Your task to perform on an android device: turn off location Image 0: 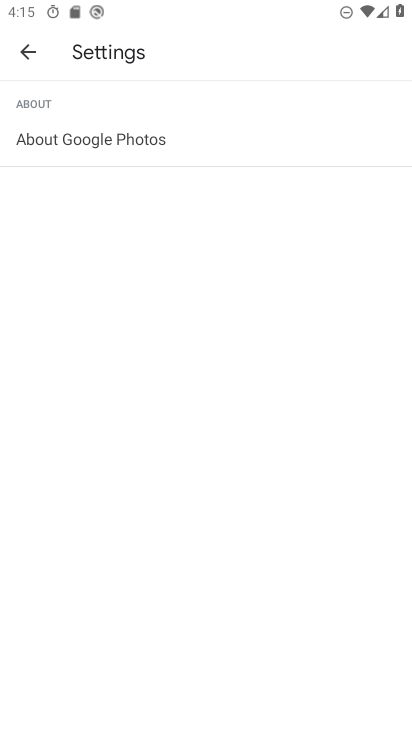
Step 0: press home button
Your task to perform on an android device: turn off location Image 1: 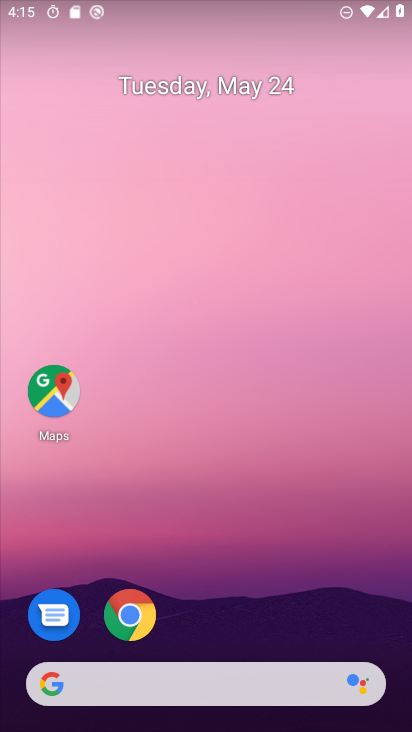
Step 1: drag from (188, 552) to (301, 167)
Your task to perform on an android device: turn off location Image 2: 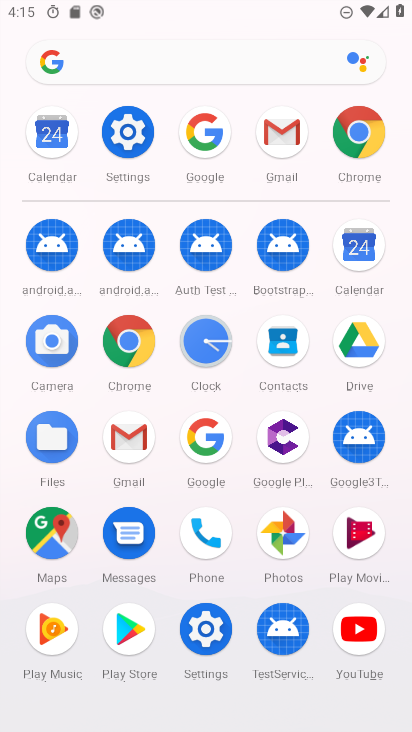
Step 2: click (137, 144)
Your task to perform on an android device: turn off location Image 3: 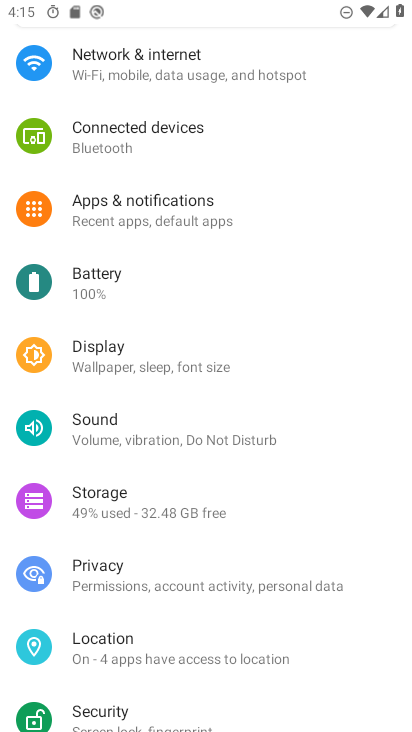
Step 3: click (168, 649)
Your task to perform on an android device: turn off location Image 4: 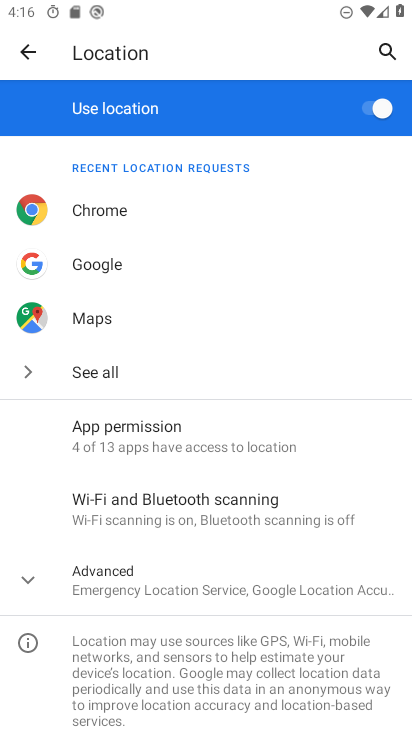
Step 4: click (362, 110)
Your task to perform on an android device: turn off location Image 5: 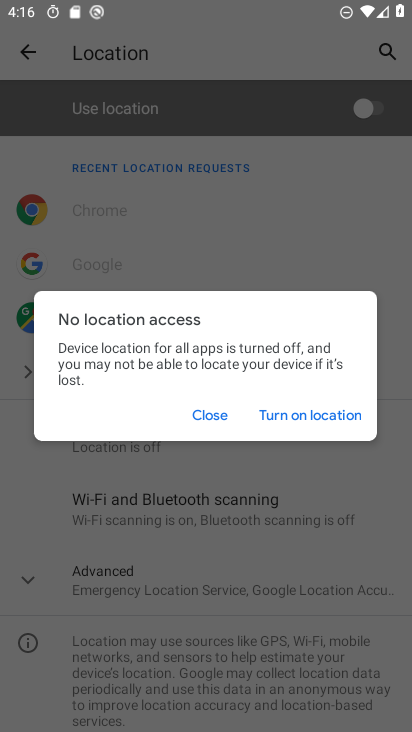
Step 5: click (215, 411)
Your task to perform on an android device: turn off location Image 6: 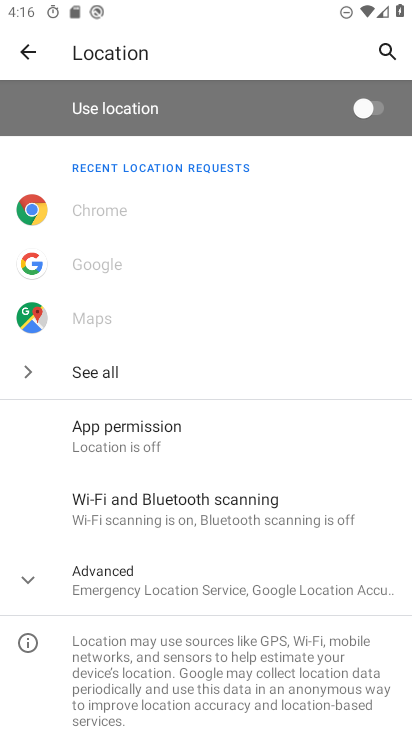
Step 6: task complete